Your task to perform on an android device: Play the latest video from the BBC Image 0: 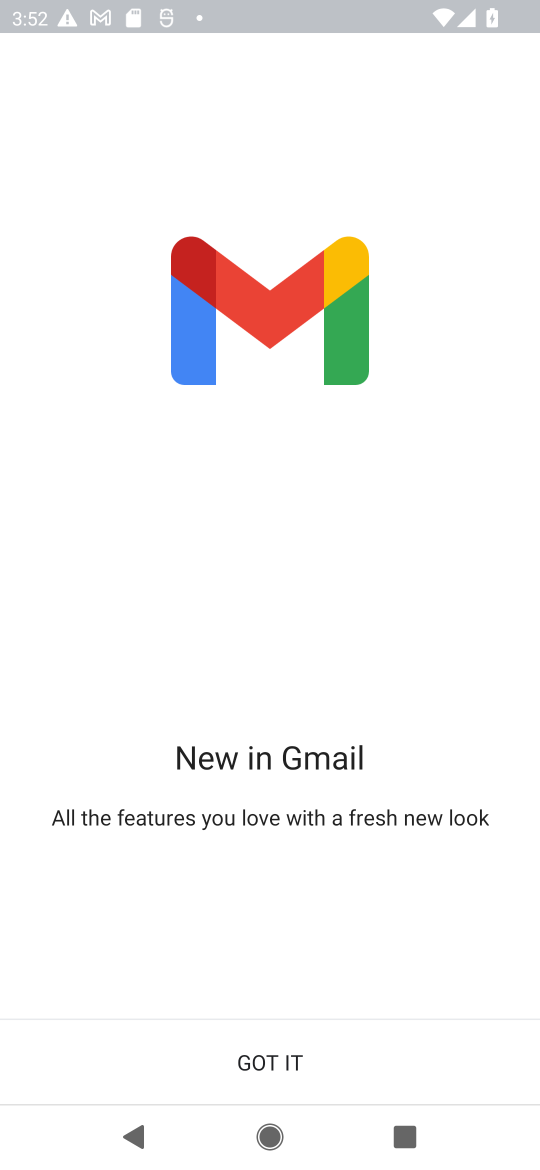
Step 0: press home button
Your task to perform on an android device: Play the latest video from the BBC Image 1: 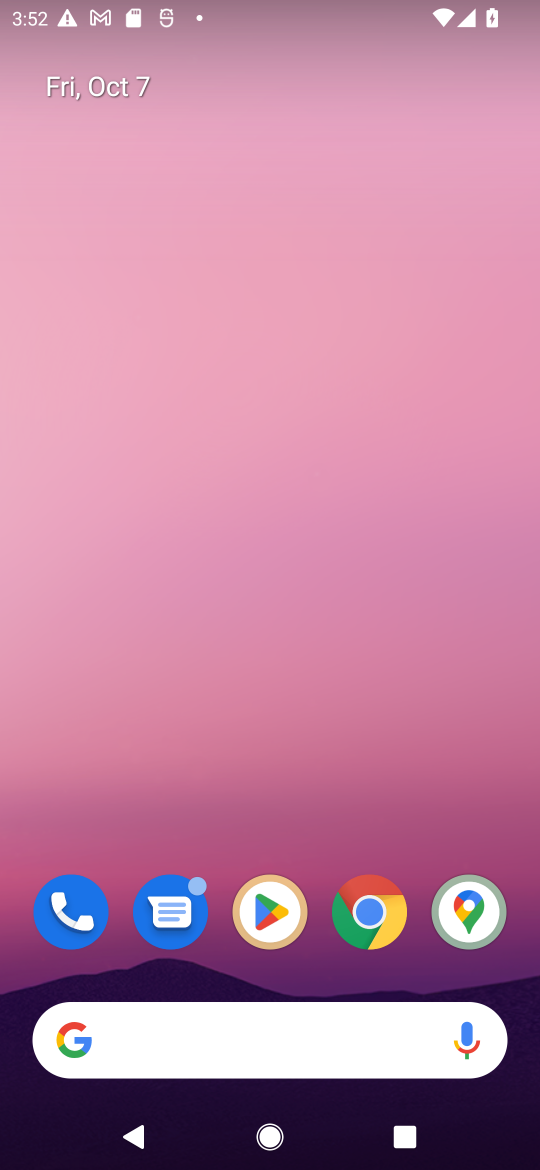
Step 1: drag from (310, 959) to (344, 414)
Your task to perform on an android device: Play the latest video from the BBC Image 2: 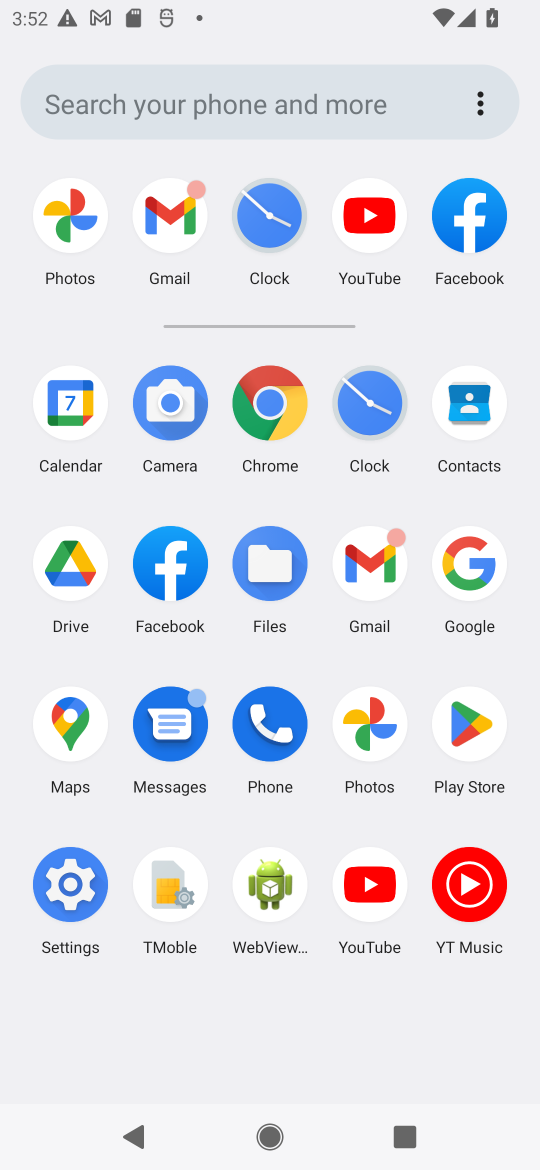
Step 2: click (467, 548)
Your task to perform on an android device: Play the latest video from the BBC Image 3: 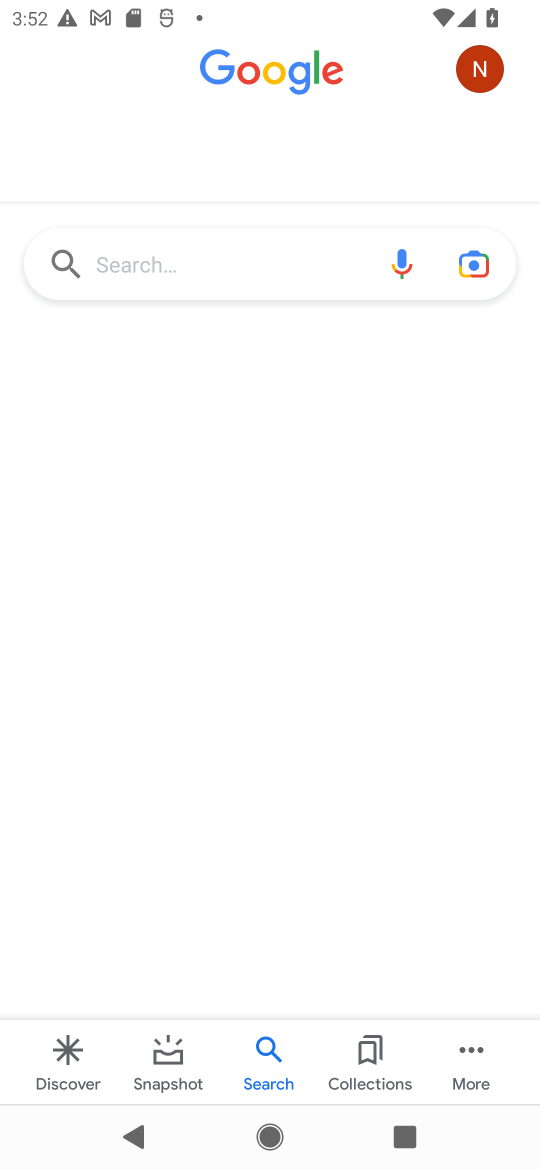
Step 3: click (230, 255)
Your task to perform on an android device: Play the latest video from the BBC Image 4: 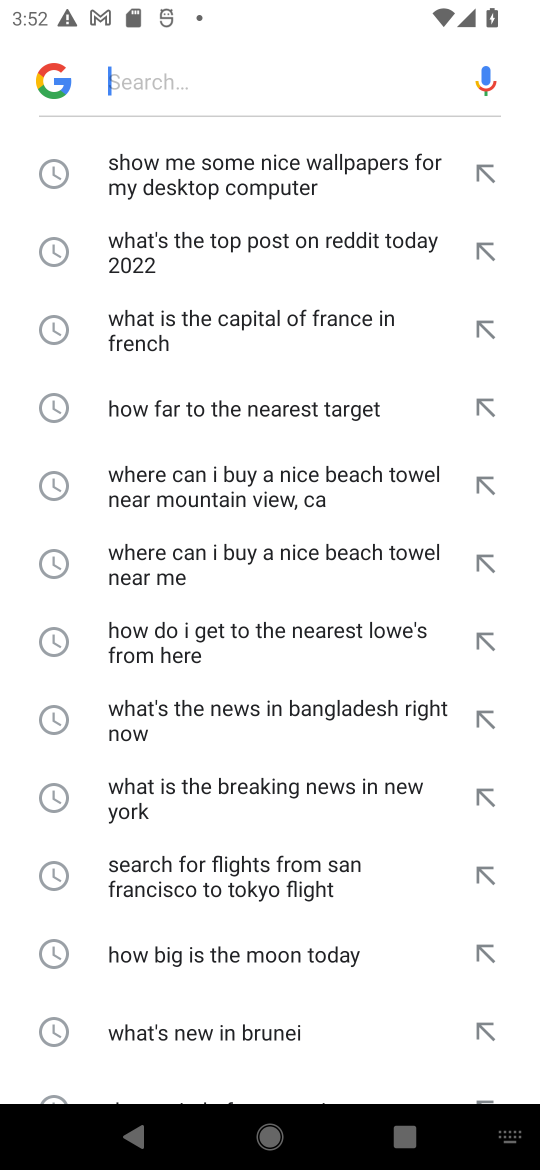
Step 4: type "Play the latest video from the BBC "
Your task to perform on an android device: Play the latest video from the BBC Image 5: 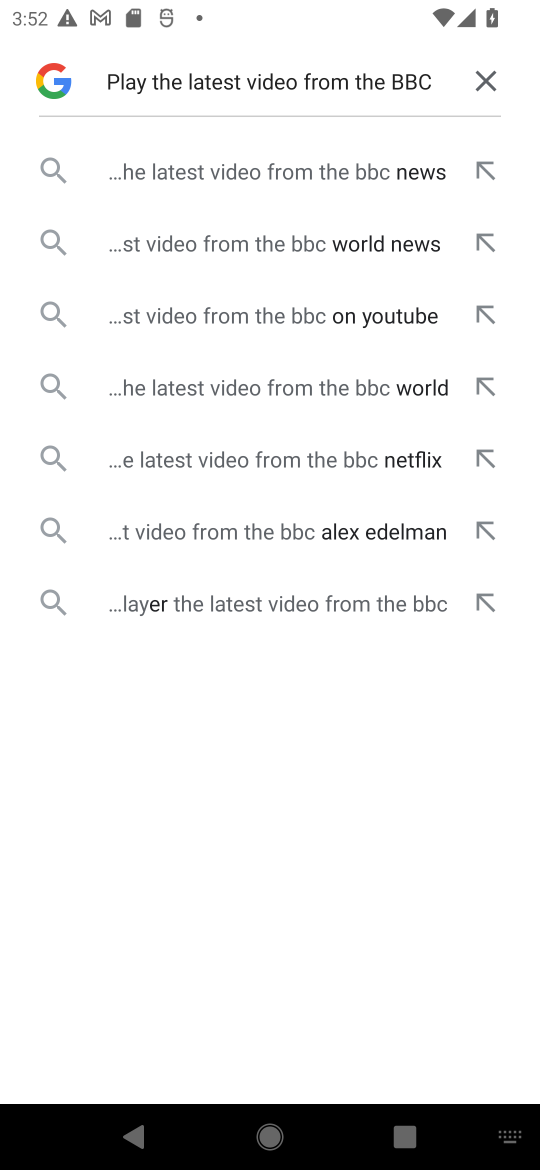
Step 5: click (292, 169)
Your task to perform on an android device: Play the latest video from the BBC Image 6: 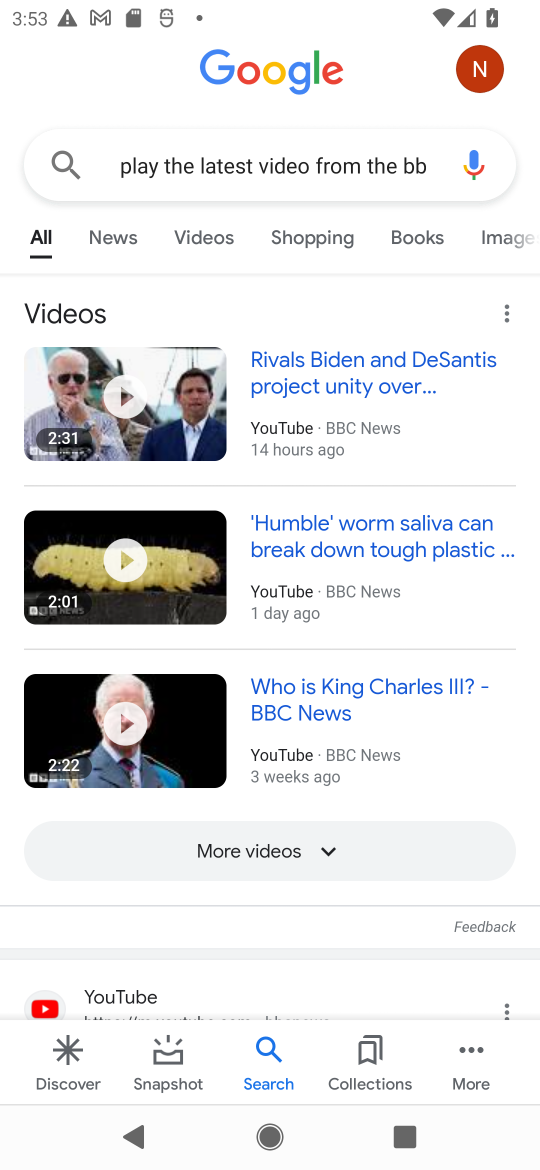
Step 6: task complete